Your task to perform on an android device: Open Google Chrome and open the bookmarks view Image 0: 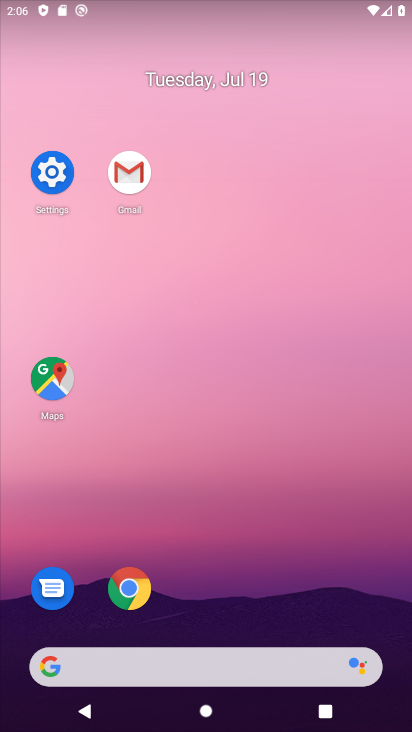
Step 0: click (131, 586)
Your task to perform on an android device: Open Google Chrome and open the bookmarks view Image 1: 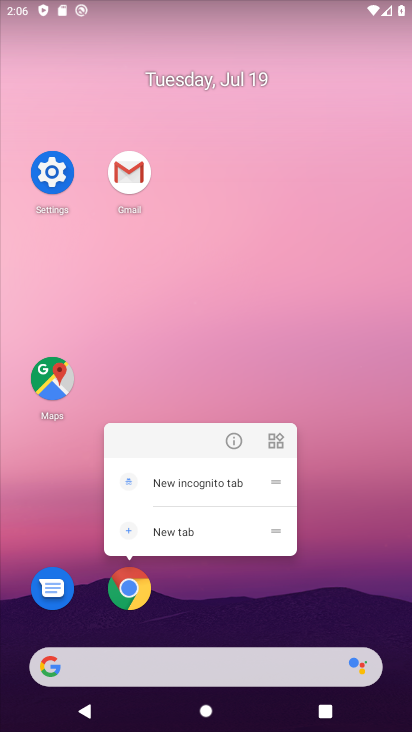
Step 1: click (334, 307)
Your task to perform on an android device: Open Google Chrome and open the bookmarks view Image 2: 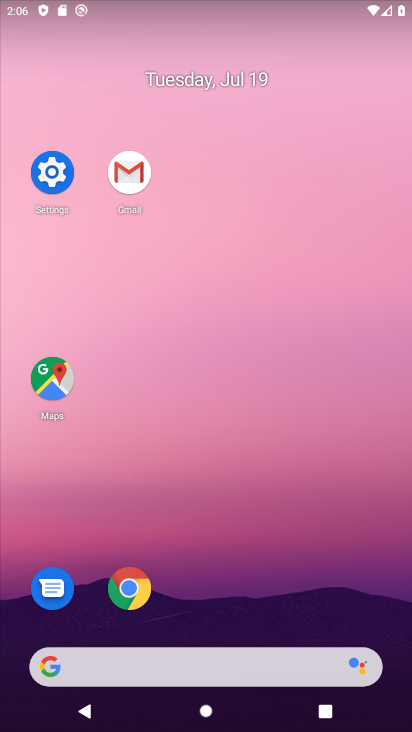
Step 2: click (125, 581)
Your task to perform on an android device: Open Google Chrome and open the bookmarks view Image 3: 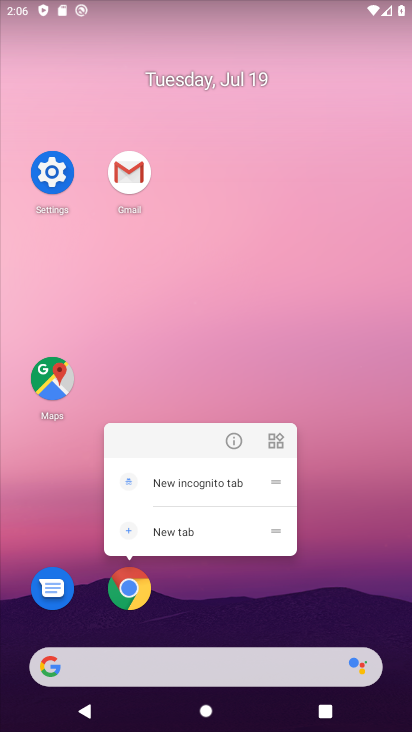
Step 3: click (128, 581)
Your task to perform on an android device: Open Google Chrome and open the bookmarks view Image 4: 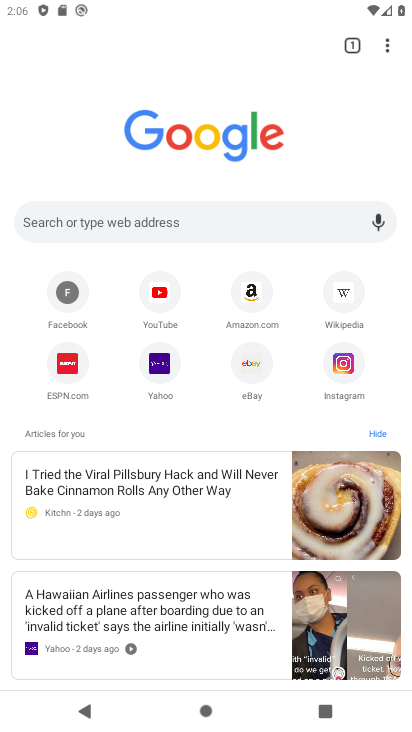
Step 4: click (397, 45)
Your task to perform on an android device: Open Google Chrome and open the bookmarks view Image 5: 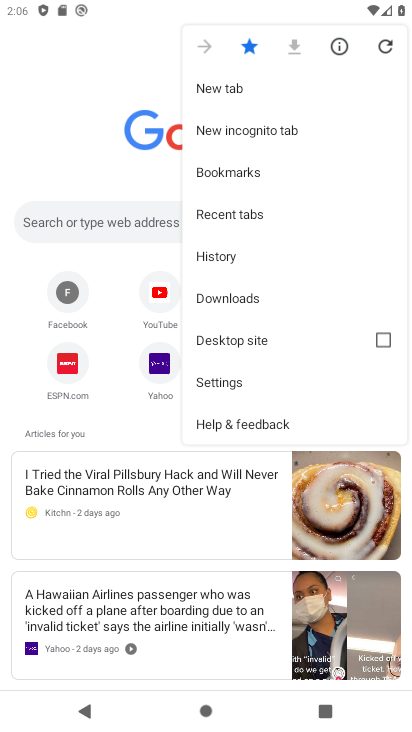
Step 5: click (237, 174)
Your task to perform on an android device: Open Google Chrome and open the bookmarks view Image 6: 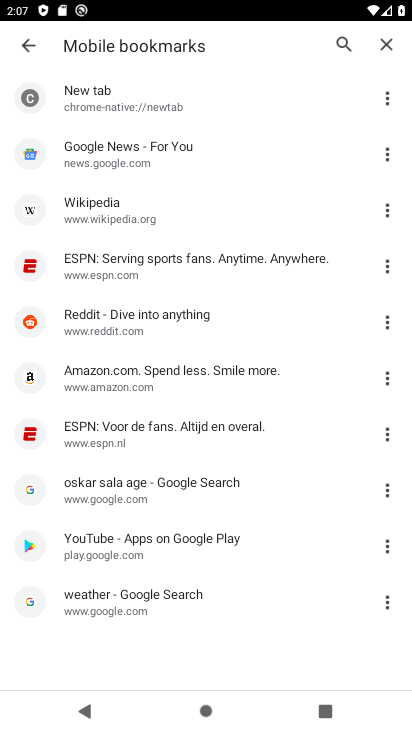
Step 6: task complete